Your task to perform on an android device: Go to location settings Image 0: 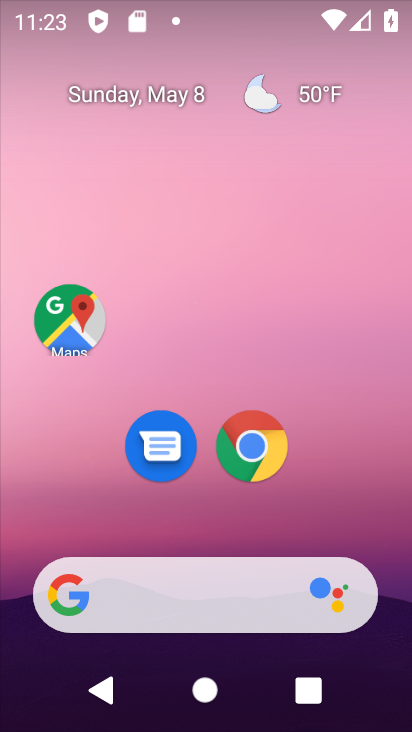
Step 0: drag from (349, 523) to (348, 0)
Your task to perform on an android device: Go to location settings Image 1: 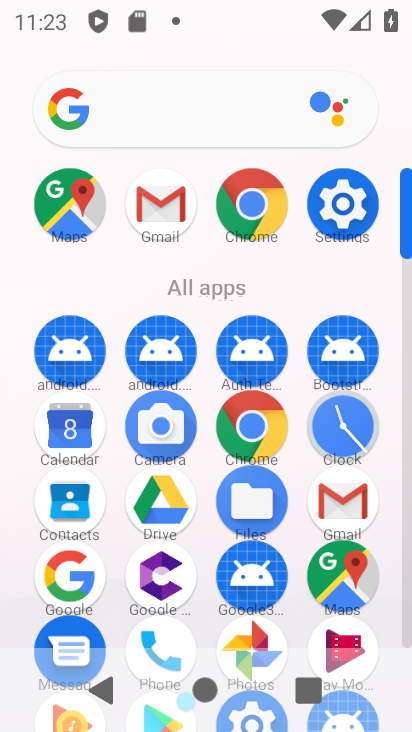
Step 1: click (333, 208)
Your task to perform on an android device: Go to location settings Image 2: 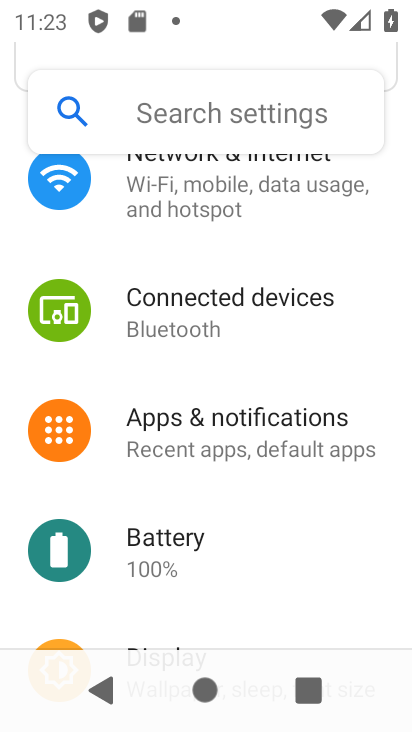
Step 2: drag from (239, 526) to (238, 411)
Your task to perform on an android device: Go to location settings Image 3: 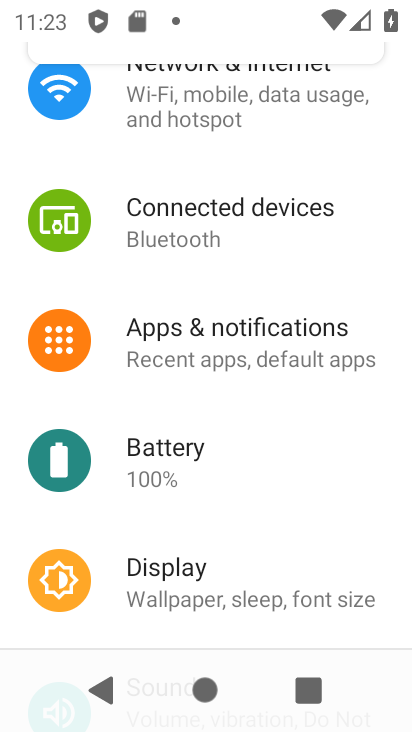
Step 3: drag from (231, 553) to (224, 388)
Your task to perform on an android device: Go to location settings Image 4: 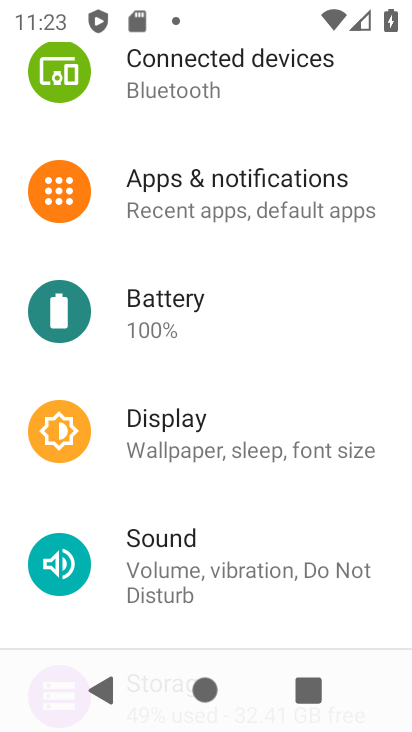
Step 4: drag from (224, 555) to (219, 457)
Your task to perform on an android device: Go to location settings Image 5: 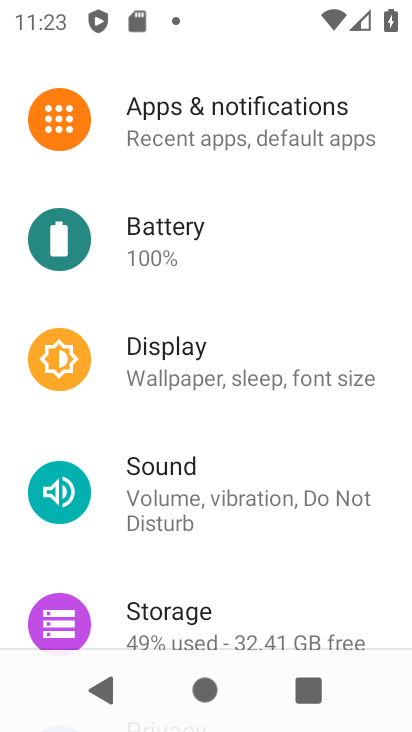
Step 5: drag from (212, 580) to (192, 442)
Your task to perform on an android device: Go to location settings Image 6: 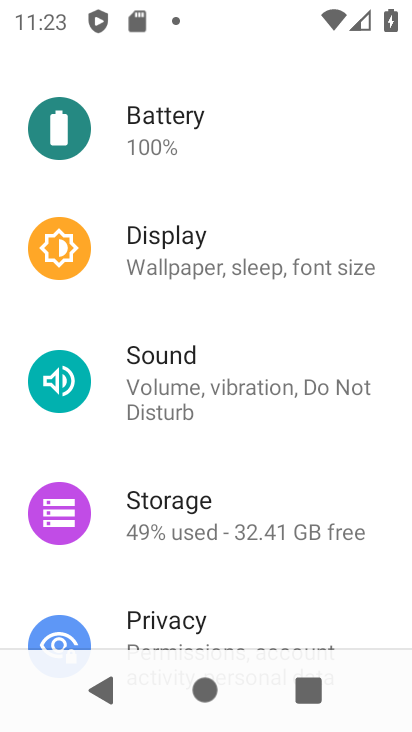
Step 6: drag from (181, 572) to (171, 443)
Your task to perform on an android device: Go to location settings Image 7: 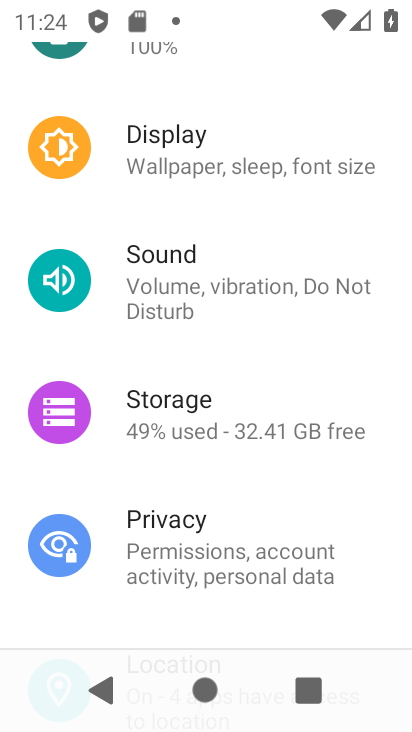
Step 7: drag from (189, 589) to (208, 440)
Your task to perform on an android device: Go to location settings Image 8: 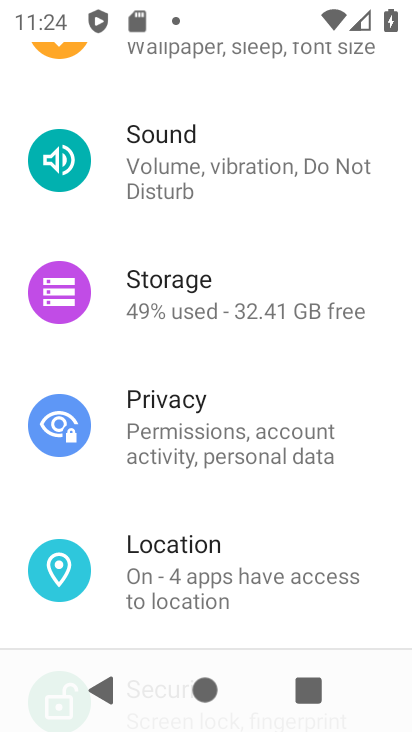
Step 8: click (179, 564)
Your task to perform on an android device: Go to location settings Image 9: 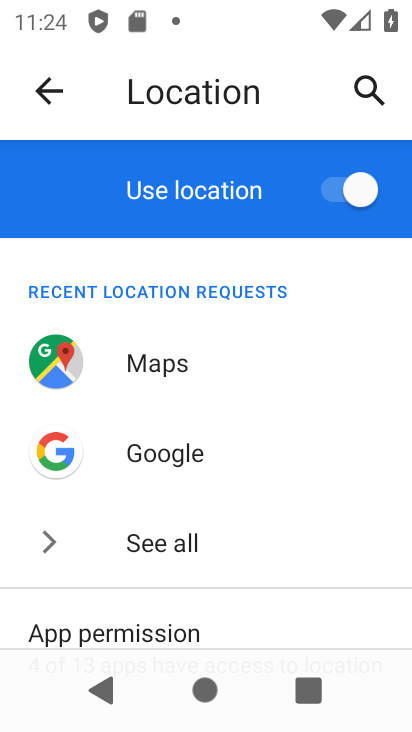
Step 9: task complete